Your task to perform on an android device: View the shopping cart on target.com. Image 0: 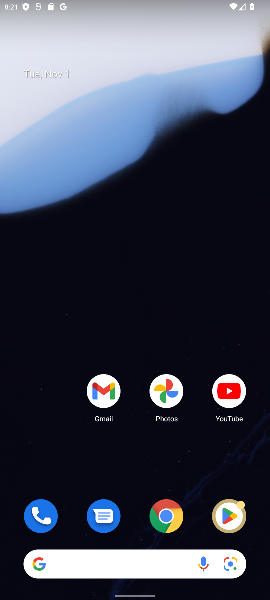
Step 0: drag from (148, 287) to (158, 60)
Your task to perform on an android device: View the shopping cart on target.com. Image 1: 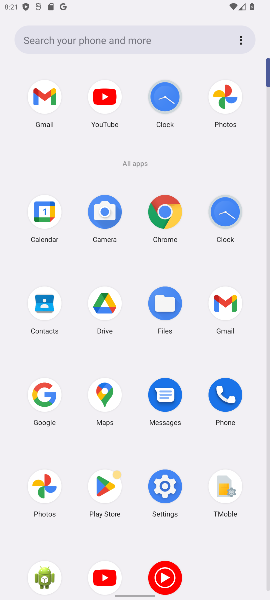
Step 1: click (165, 211)
Your task to perform on an android device: View the shopping cart on target.com. Image 2: 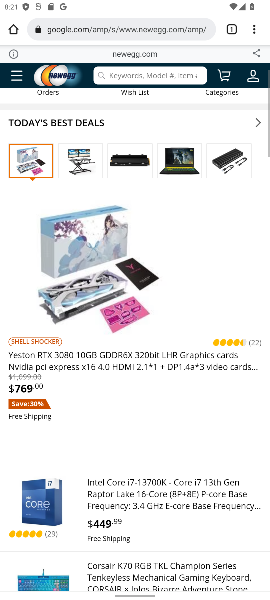
Step 2: click (76, 26)
Your task to perform on an android device: View the shopping cart on target.com. Image 3: 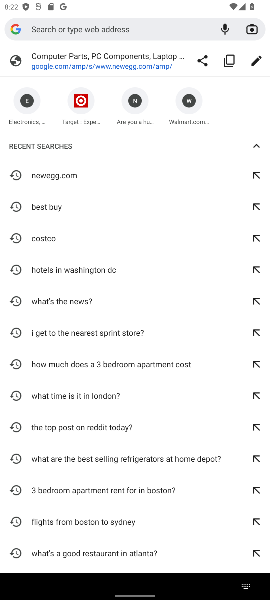
Step 3: type "target"
Your task to perform on an android device: View the shopping cart on target.com. Image 4: 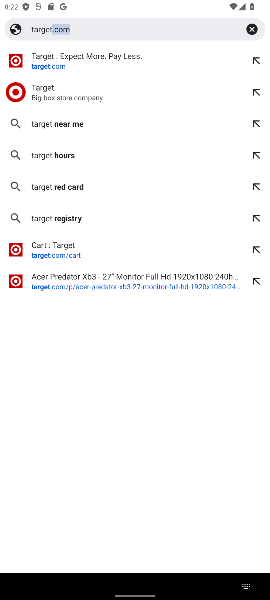
Step 4: click (60, 93)
Your task to perform on an android device: View the shopping cart on target.com. Image 5: 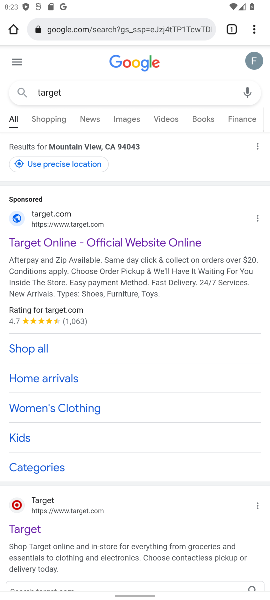
Step 5: click (59, 247)
Your task to perform on an android device: View the shopping cart on target.com. Image 6: 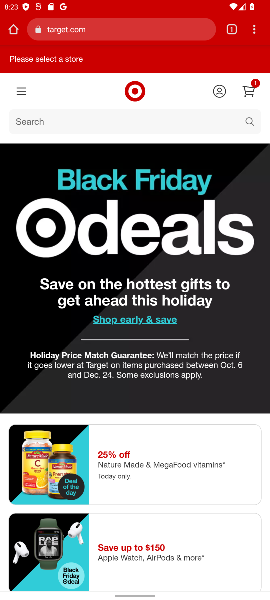
Step 6: click (44, 123)
Your task to perform on an android device: View the shopping cart on target.com. Image 7: 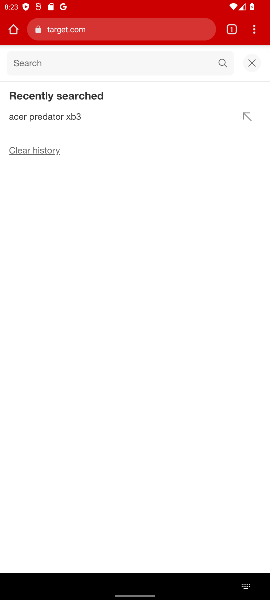
Step 7: click (254, 59)
Your task to perform on an android device: View the shopping cart on target.com. Image 8: 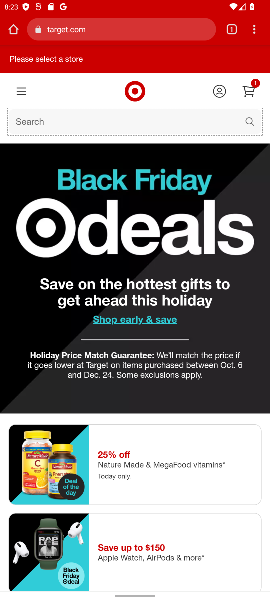
Step 8: click (254, 93)
Your task to perform on an android device: View the shopping cart on target.com. Image 9: 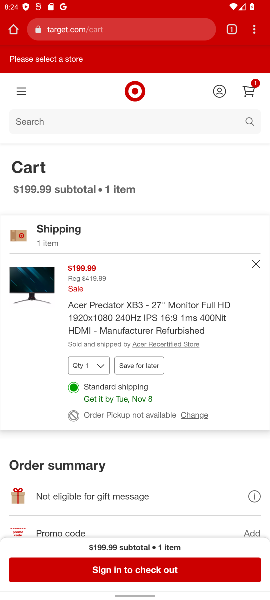
Step 9: click (255, 267)
Your task to perform on an android device: View the shopping cart on target.com. Image 10: 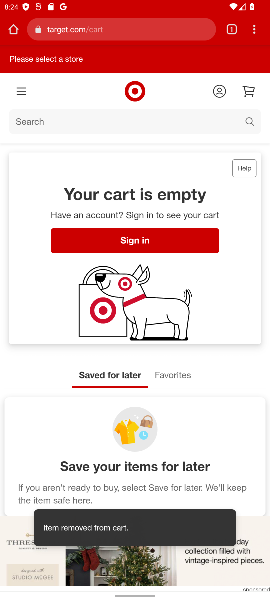
Step 10: task complete